Your task to perform on an android device: Go to wifi settings Image 0: 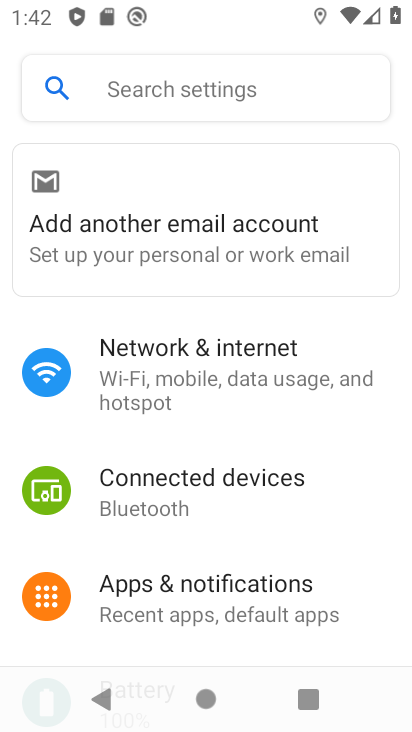
Step 0: press home button
Your task to perform on an android device: Go to wifi settings Image 1: 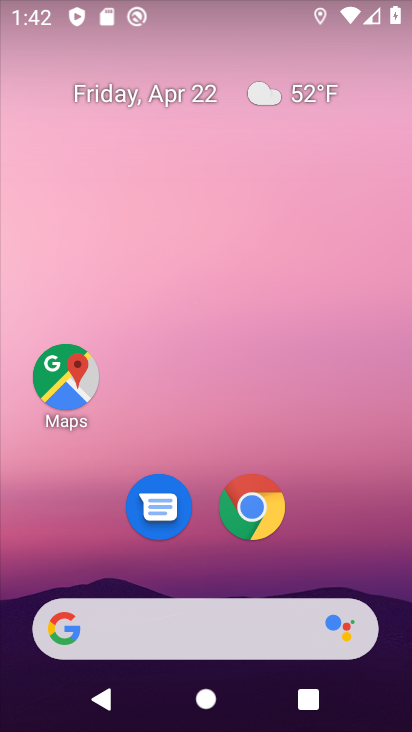
Step 1: drag from (184, 620) to (315, 11)
Your task to perform on an android device: Go to wifi settings Image 2: 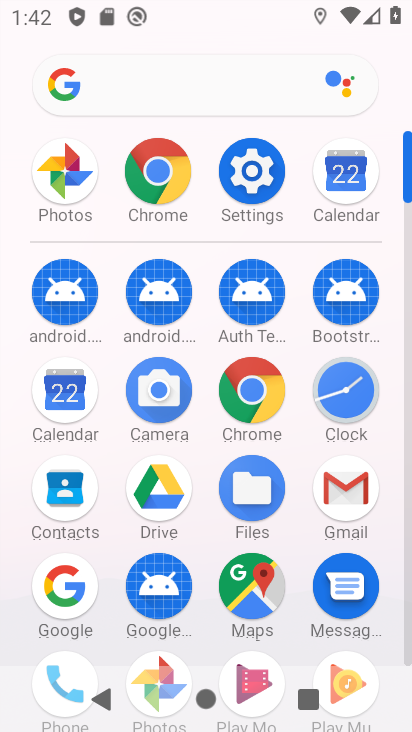
Step 2: click (253, 182)
Your task to perform on an android device: Go to wifi settings Image 3: 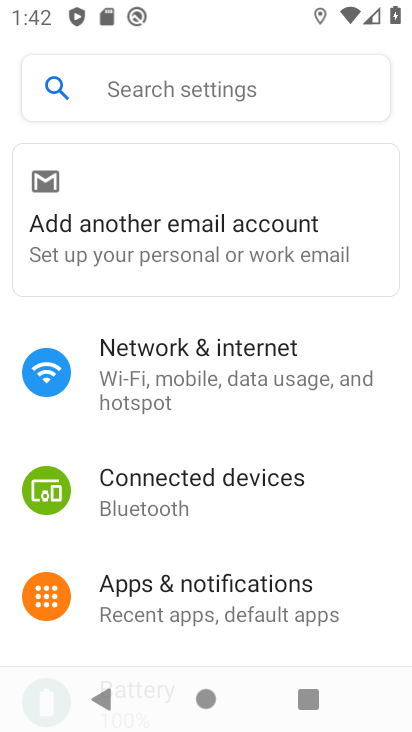
Step 3: click (201, 360)
Your task to perform on an android device: Go to wifi settings Image 4: 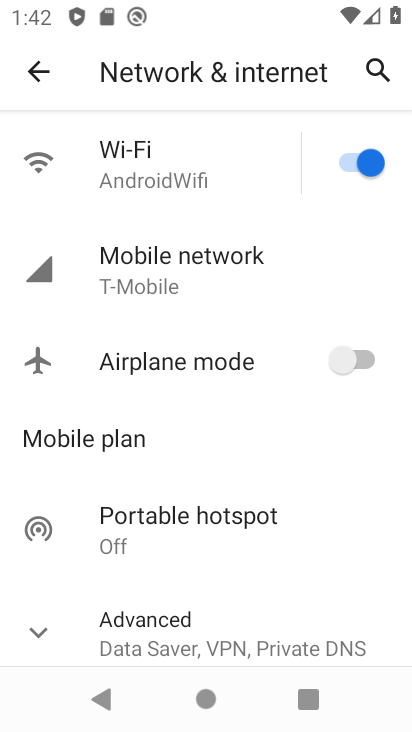
Step 4: click (205, 170)
Your task to perform on an android device: Go to wifi settings Image 5: 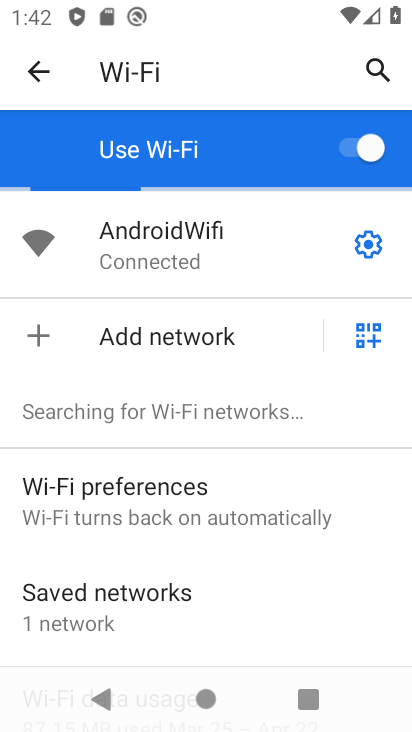
Step 5: task complete